Your task to perform on an android device: turn on notifications settings in the gmail app Image 0: 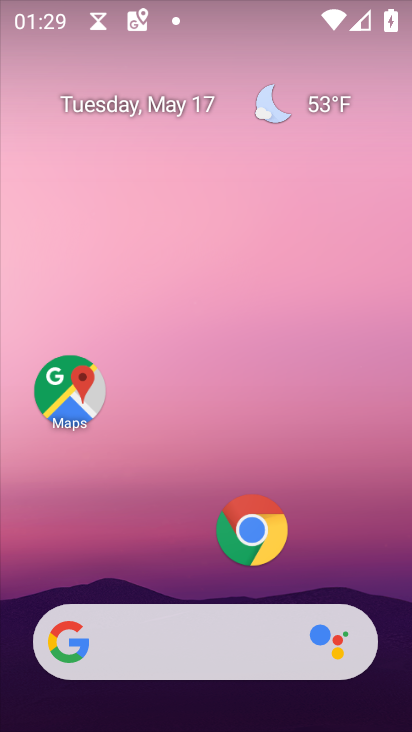
Step 0: drag from (326, 550) to (298, 230)
Your task to perform on an android device: turn on notifications settings in the gmail app Image 1: 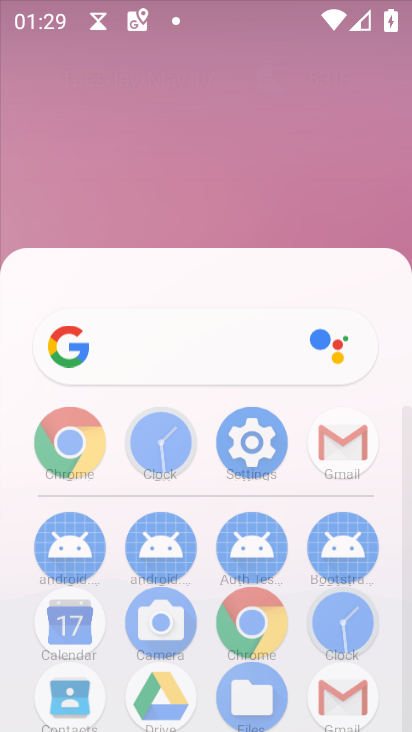
Step 1: click (298, 230)
Your task to perform on an android device: turn on notifications settings in the gmail app Image 2: 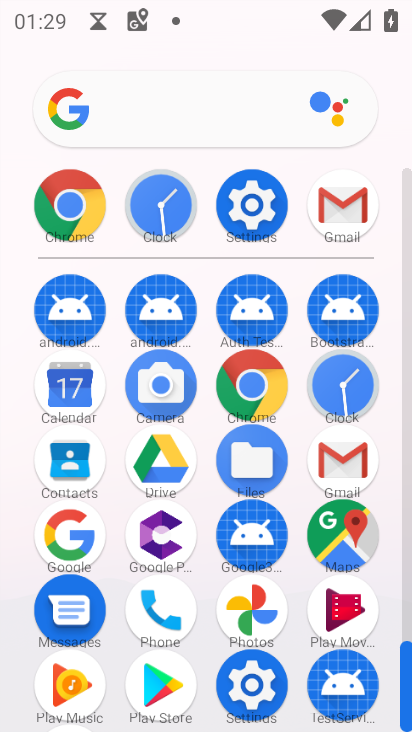
Step 2: click (259, 201)
Your task to perform on an android device: turn on notifications settings in the gmail app Image 3: 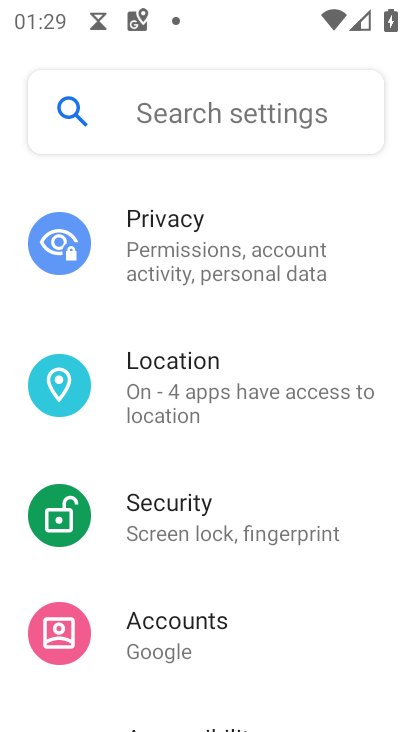
Step 3: press back button
Your task to perform on an android device: turn on notifications settings in the gmail app Image 4: 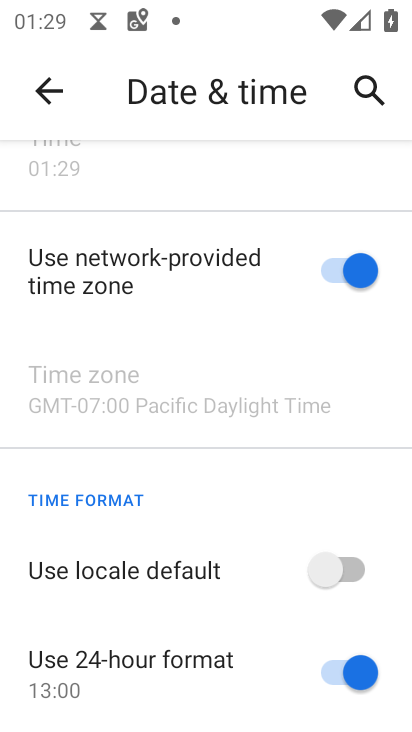
Step 4: press back button
Your task to perform on an android device: turn on notifications settings in the gmail app Image 5: 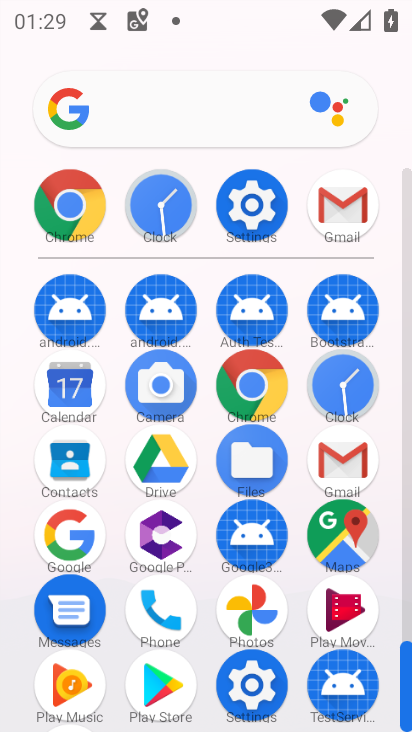
Step 5: click (341, 220)
Your task to perform on an android device: turn on notifications settings in the gmail app Image 6: 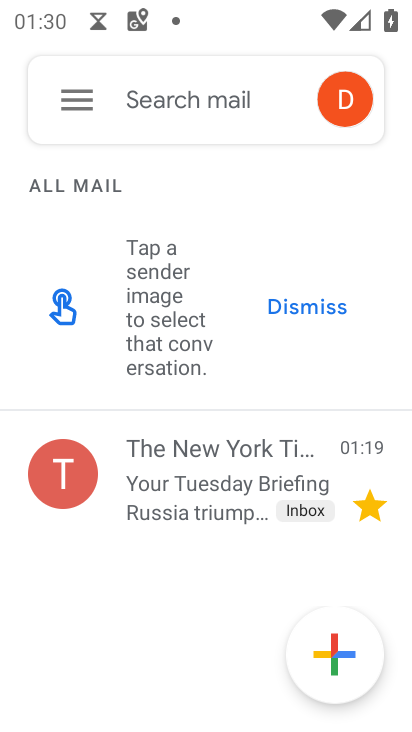
Step 6: click (72, 102)
Your task to perform on an android device: turn on notifications settings in the gmail app Image 7: 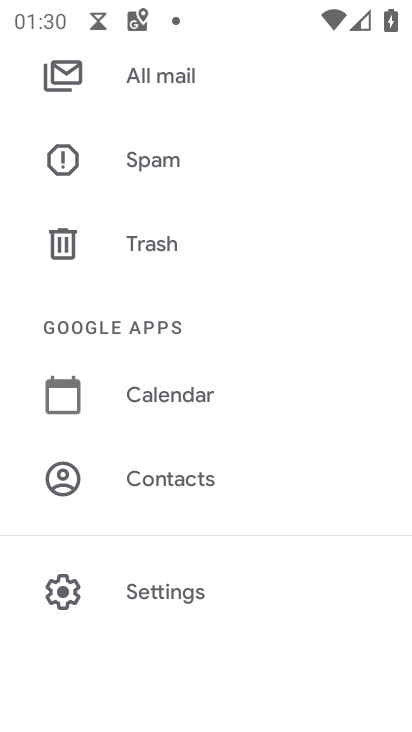
Step 7: click (175, 585)
Your task to perform on an android device: turn on notifications settings in the gmail app Image 8: 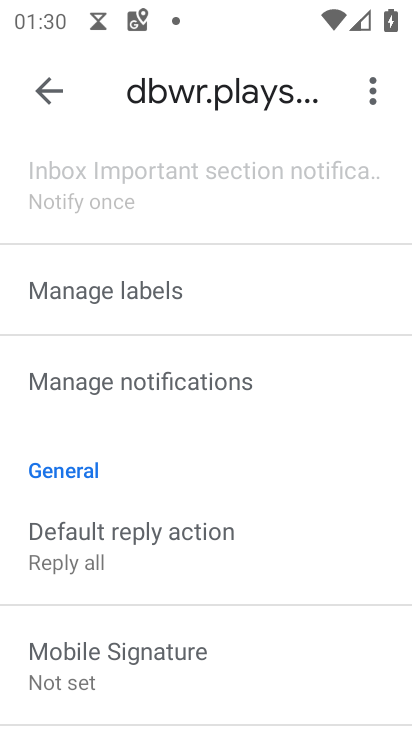
Step 8: click (221, 383)
Your task to perform on an android device: turn on notifications settings in the gmail app Image 9: 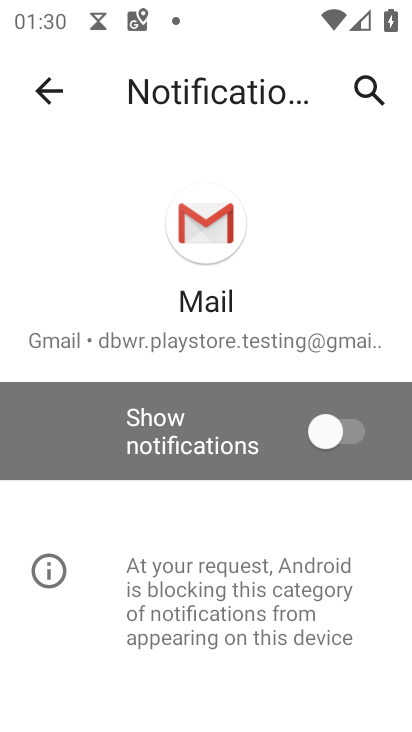
Step 9: click (345, 432)
Your task to perform on an android device: turn on notifications settings in the gmail app Image 10: 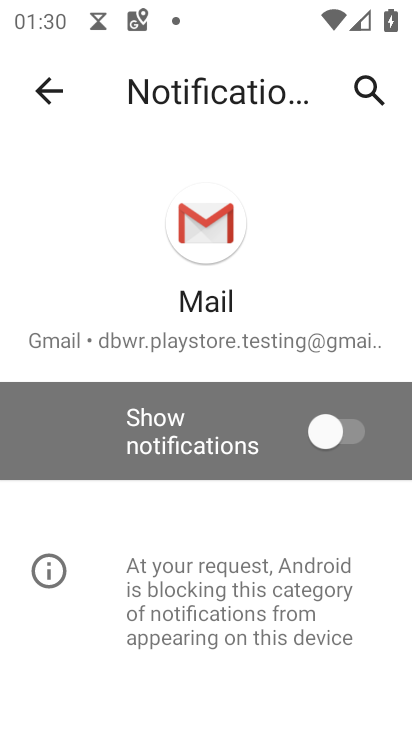
Step 10: click (345, 432)
Your task to perform on an android device: turn on notifications settings in the gmail app Image 11: 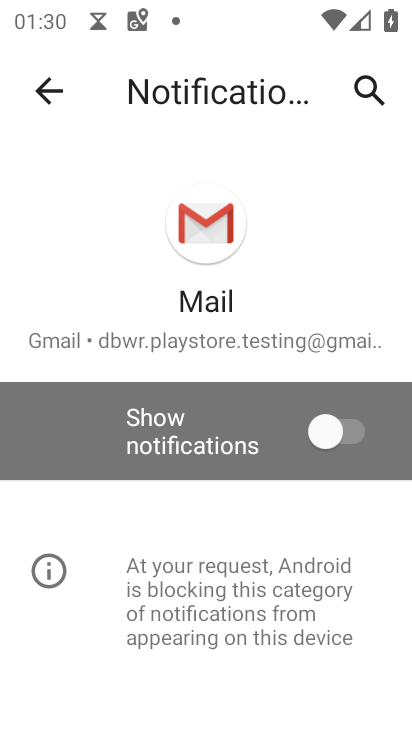
Step 11: click (345, 432)
Your task to perform on an android device: turn on notifications settings in the gmail app Image 12: 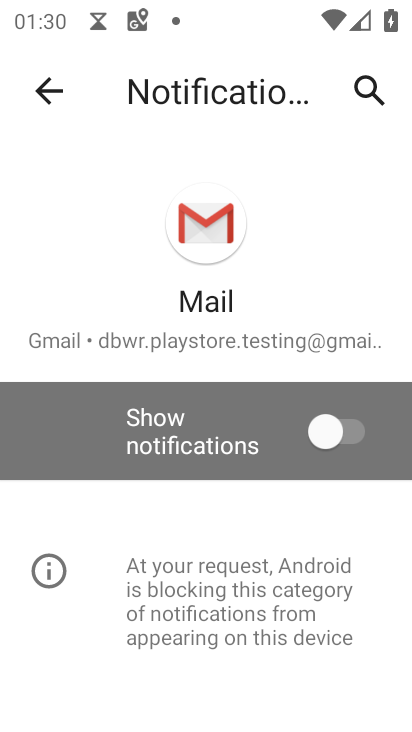
Step 12: click (345, 432)
Your task to perform on an android device: turn on notifications settings in the gmail app Image 13: 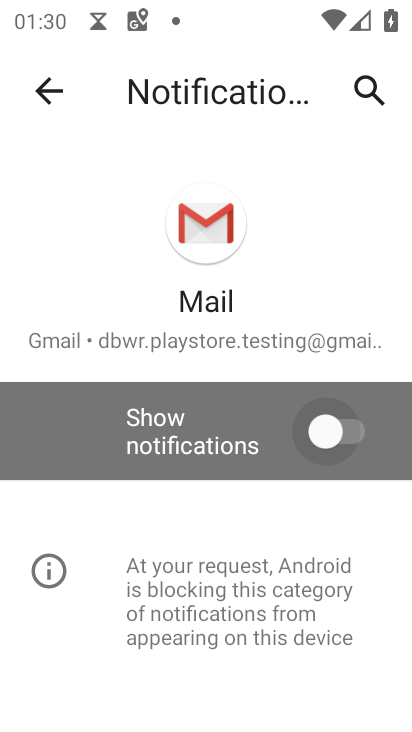
Step 13: click (345, 432)
Your task to perform on an android device: turn on notifications settings in the gmail app Image 14: 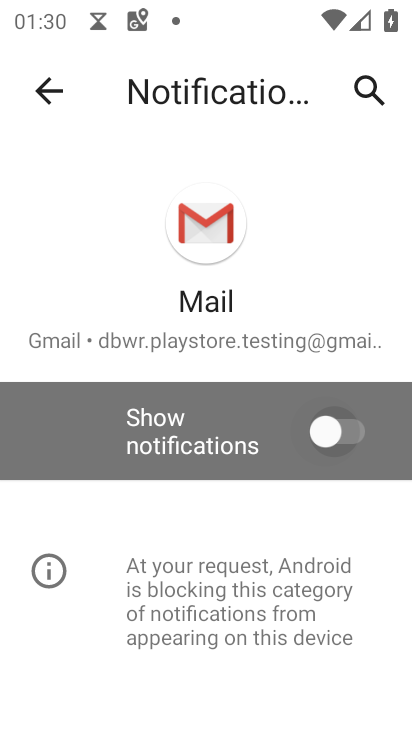
Step 14: click (345, 432)
Your task to perform on an android device: turn on notifications settings in the gmail app Image 15: 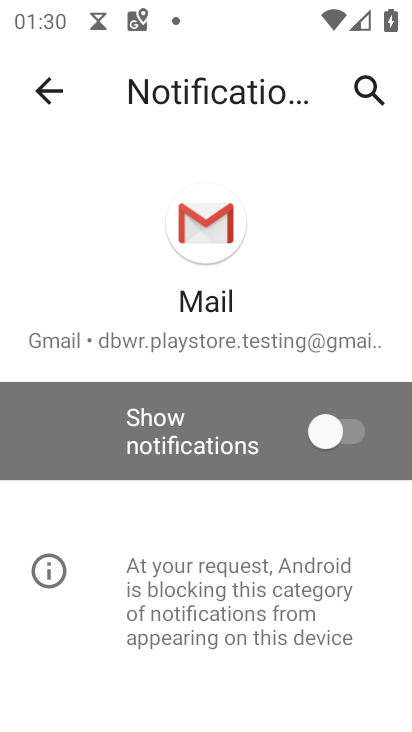
Step 15: drag from (262, 632) to (242, 367)
Your task to perform on an android device: turn on notifications settings in the gmail app Image 16: 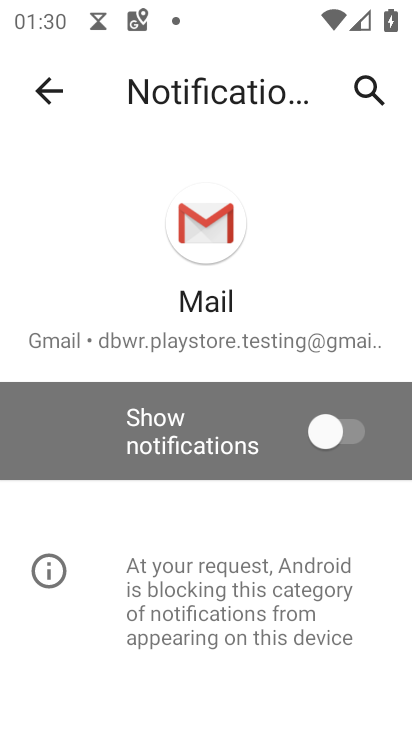
Step 16: click (51, 562)
Your task to perform on an android device: turn on notifications settings in the gmail app Image 17: 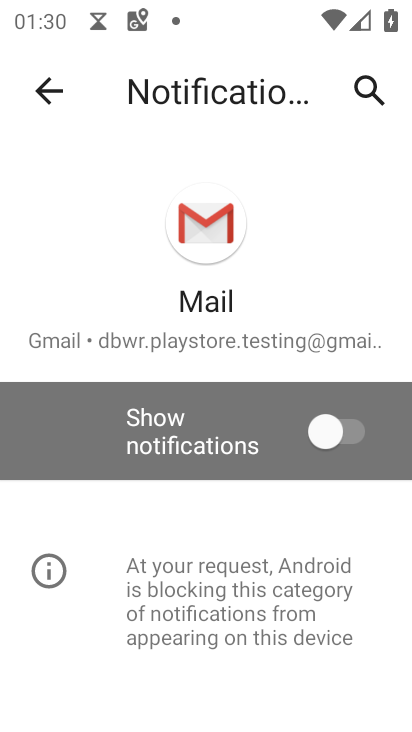
Step 17: click (343, 426)
Your task to perform on an android device: turn on notifications settings in the gmail app Image 18: 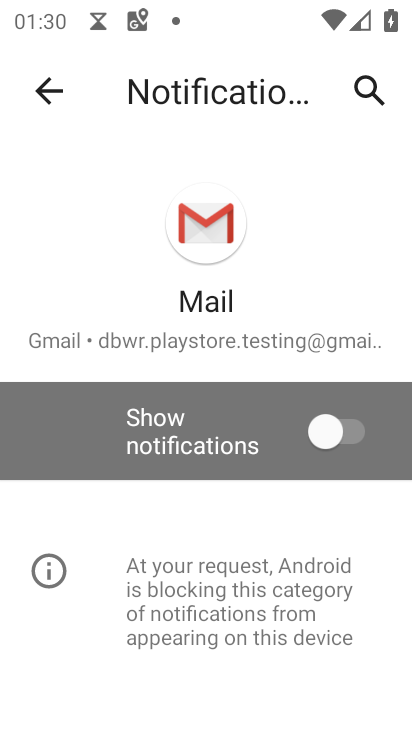
Step 18: task complete